Your task to perform on an android device: Open Android settings Image 0: 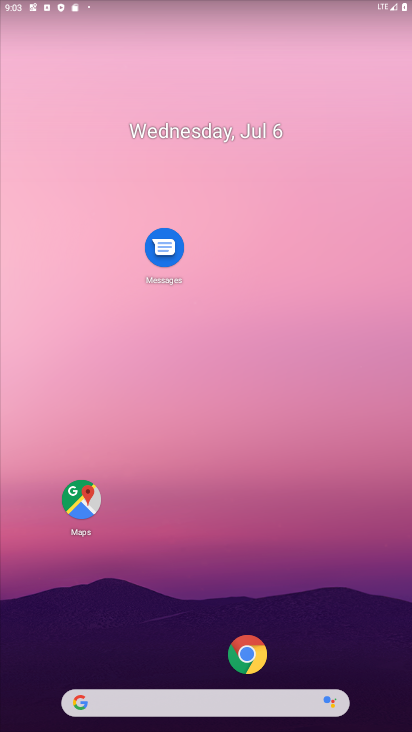
Step 0: drag from (197, 9) to (177, 624)
Your task to perform on an android device: Open Android settings Image 1: 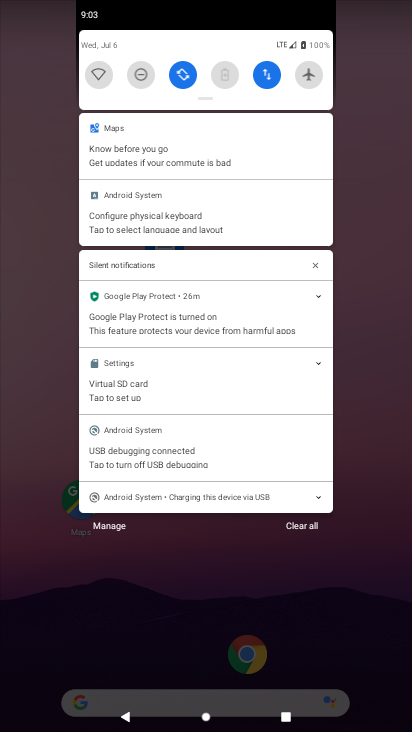
Step 1: drag from (211, 53) to (233, 524)
Your task to perform on an android device: Open Android settings Image 2: 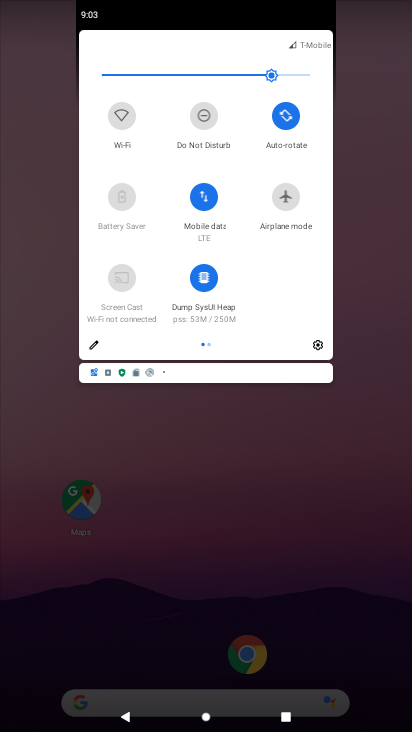
Step 2: click (318, 340)
Your task to perform on an android device: Open Android settings Image 3: 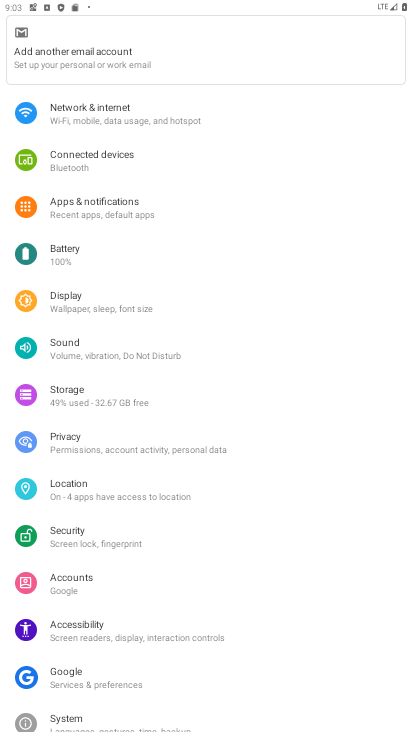
Step 3: task complete